Your task to perform on an android device: change the clock display to analog Image 0: 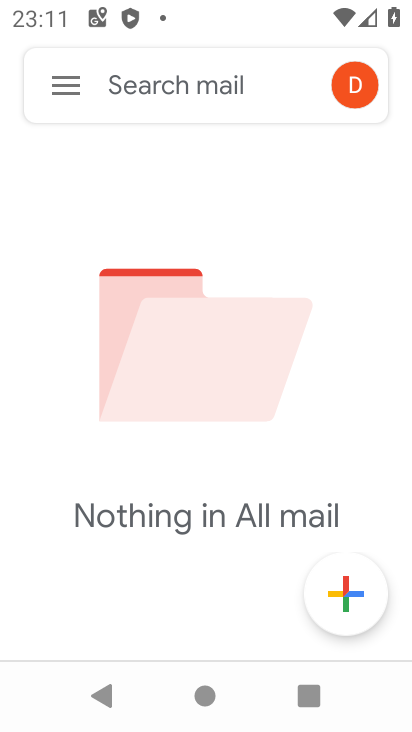
Step 0: press home button
Your task to perform on an android device: change the clock display to analog Image 1: 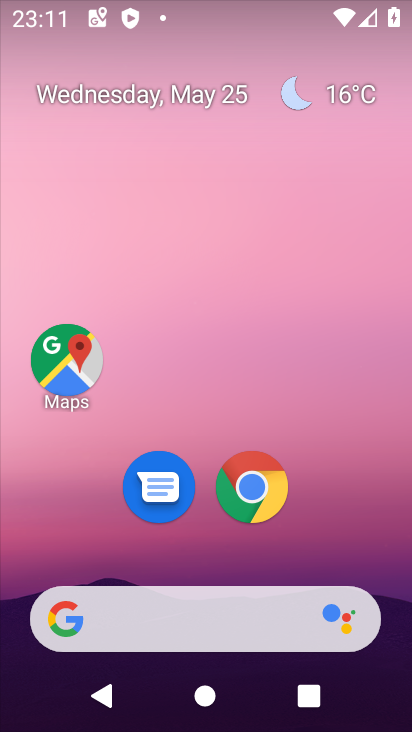
Step 1: drag from (250, 681) to (246, 105)
Your task to perform on an android device: change the clock display to analog Image 2: 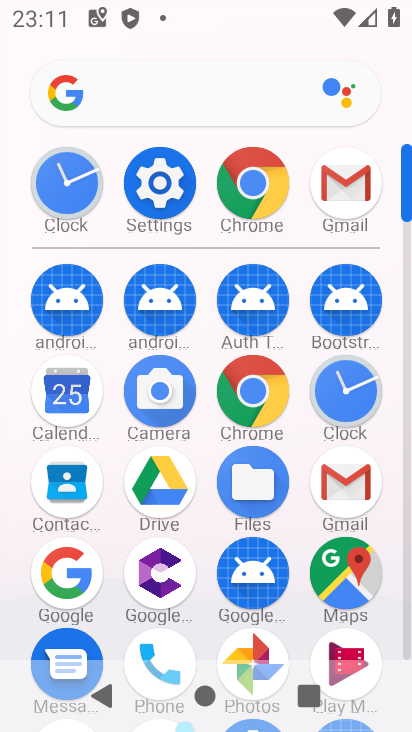
Step 2: click (81, 189)
Your task to perform on an android device: change the clock display to analog Image 3: 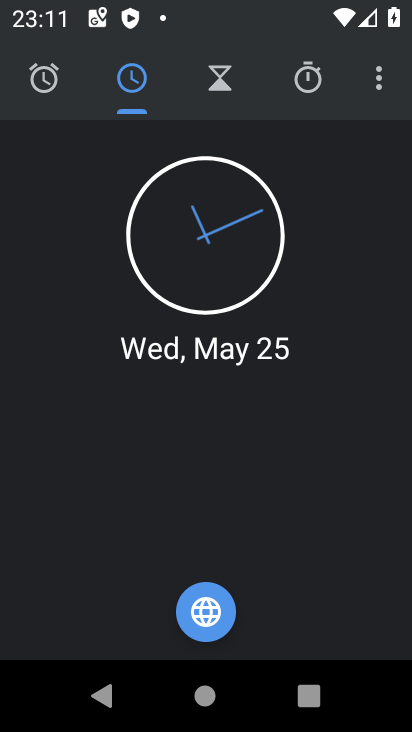
Step 3: click (384, 86)
Your task to perform on an android device: change the clock display to analog Image 4: 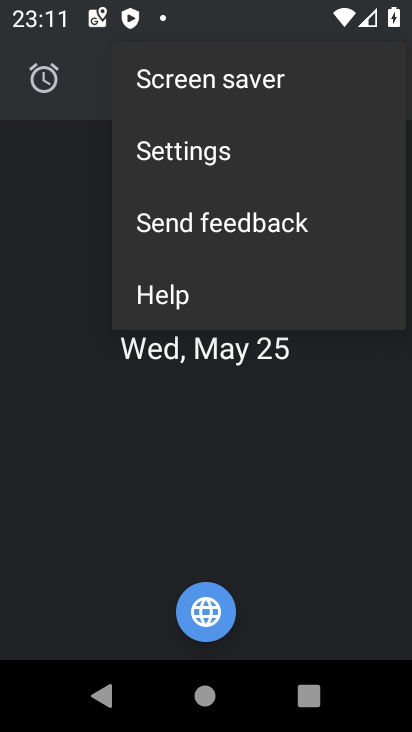
Step 4: click (195, 149)
Your task to perform on an android device: change the clock display to analog Image 5: 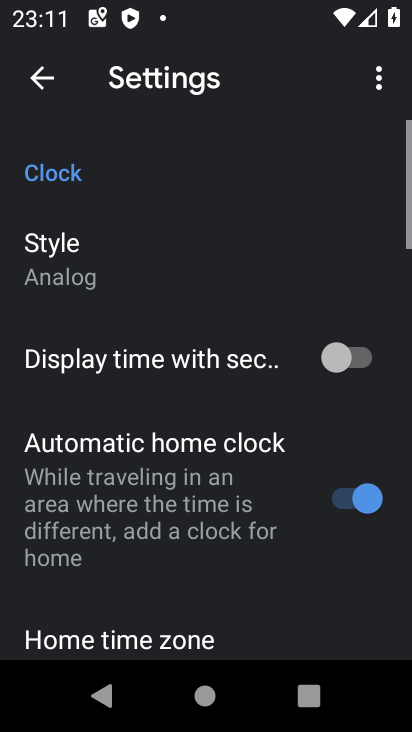
Step 5: drag from (230, 505) to (202, 45)
Your task to perform on an android device: change the clock display to analog Image 6: 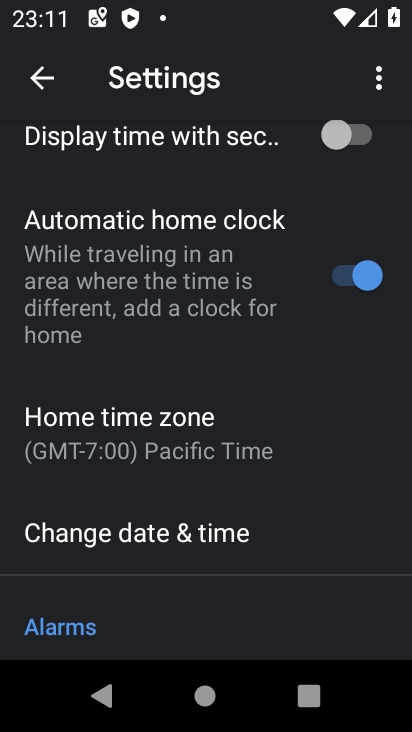
Step 6: drag from (209, 258) to (193, 731)
Your task to perform on an android device: change the clock display to analog Image 7: 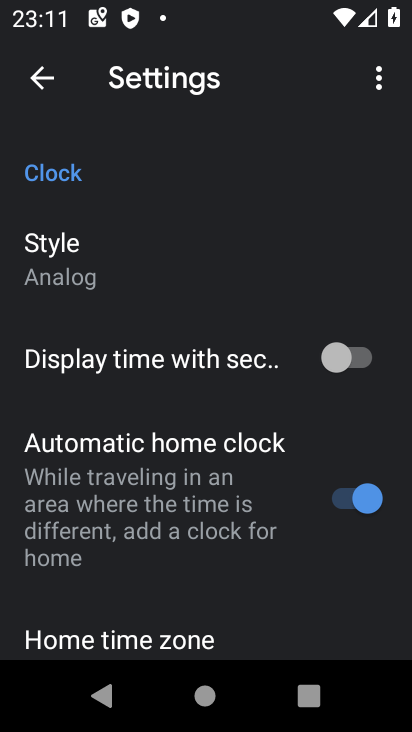
Step 7: drag from (195, 226) to (178, 640)
Your task to perform on an android device: change the clock display to analog Image 8: 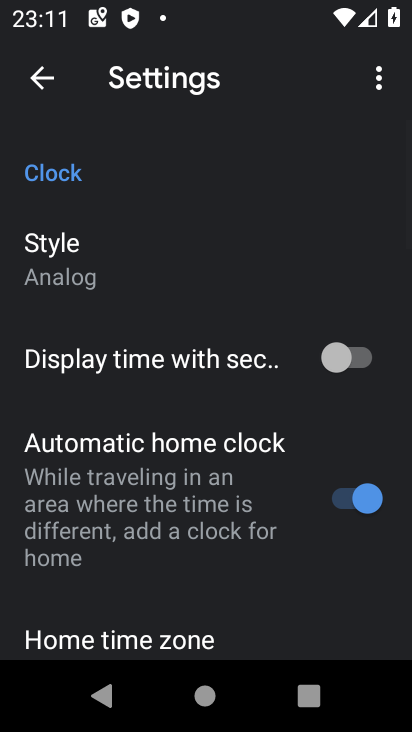
Step 8: click (113, 279)
Your task to perform on an android device: change the clock display to analog Image 9: 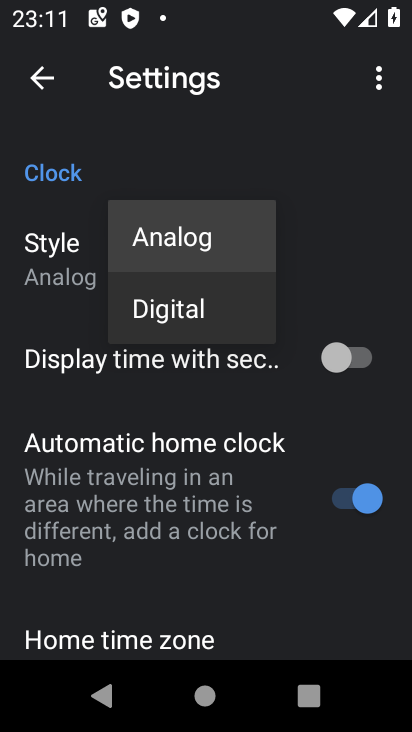
Step 9: task complete